Your task to perform on an android device: move a message to another label in the gmail app Image 0: 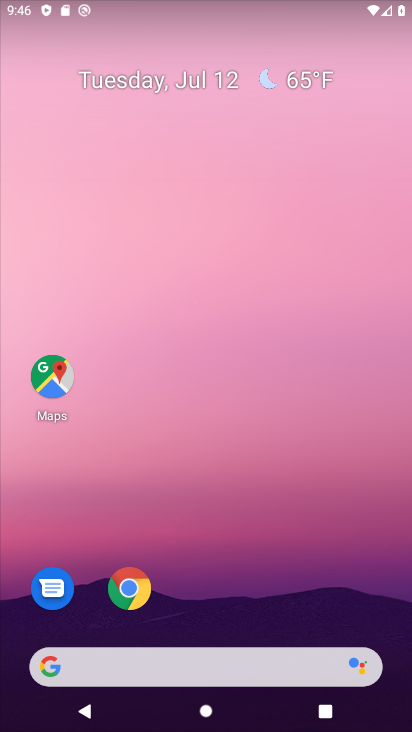
Step 0: drag from (46, 647) to (362, 0)
Your task to perform on an android device: move a message to another label in the gmail app Image 1: 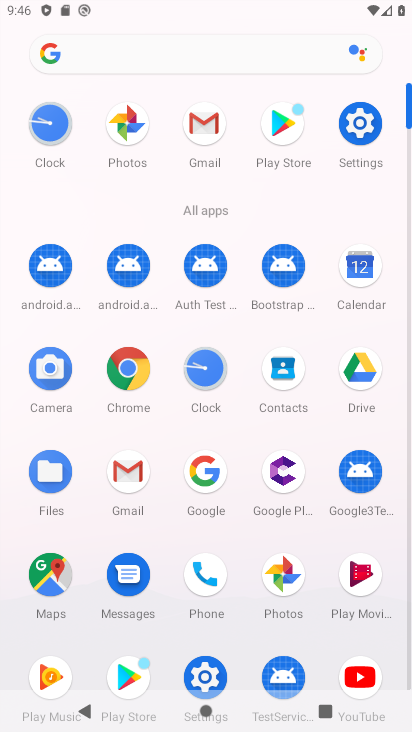
Step 1: click (136, 484)
Your task to perform on an android device: move a message to another label in the gmail app Image 2: 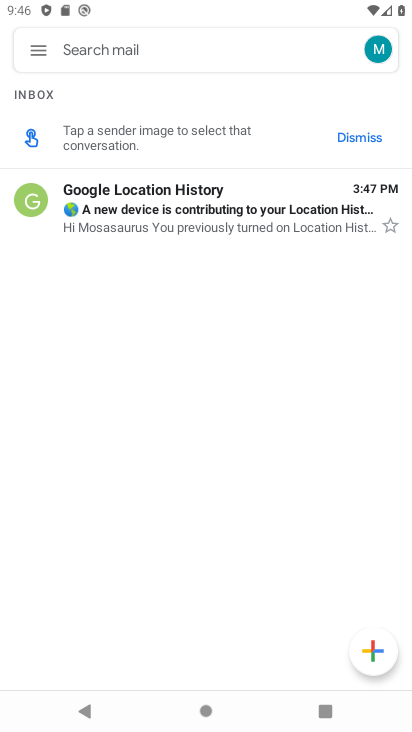
Step 2: click (43, 50)
Your task to perform on an android device: move a message to another label in the gmail app Image 3: 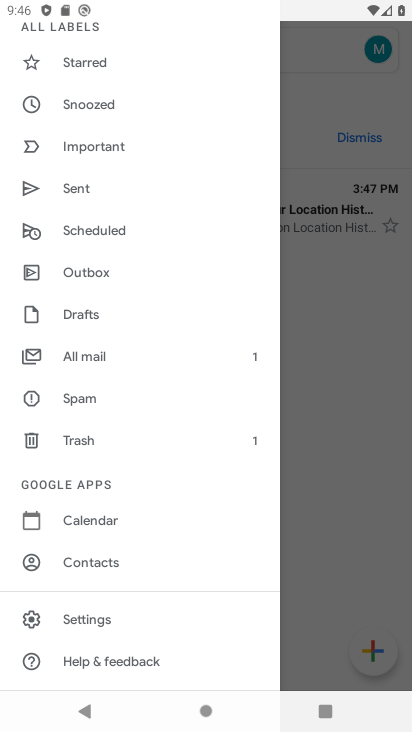
Step 3: drag from (200, 348) to (181, 720)
Your task to perform on an android device: move a message to another label in the gmail app Image 4: 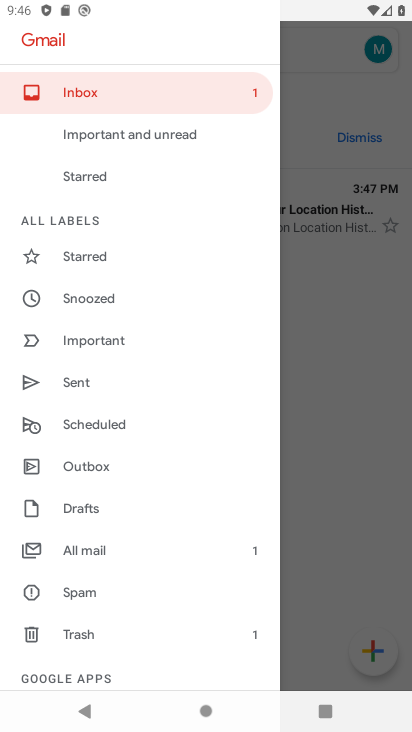
Step 4: click (111, 108)
Your task to perform on an android device: move a message to another label in the gmail app Image 5: 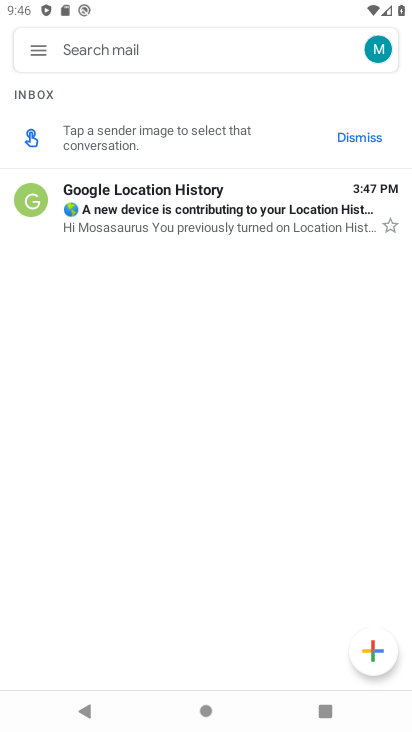
Step 5: task complete